Your task to perform on an android device: Go to eBay Image 0: 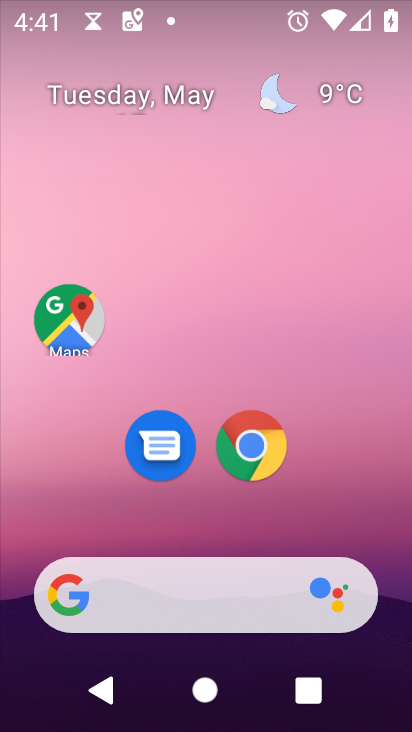
Step 0: drag from (261, 601) to (265, 119)
Your task to perform on an android device: Go to eBay Image 1: 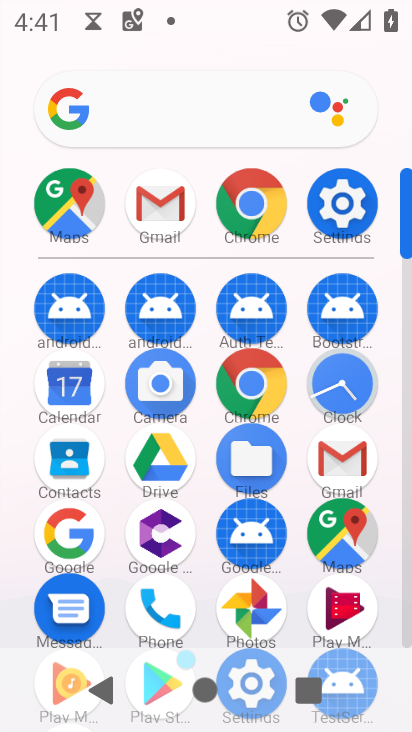
Step 1: click (262, 353)
Your task to perform on an android device: Go to eBay Image 2: 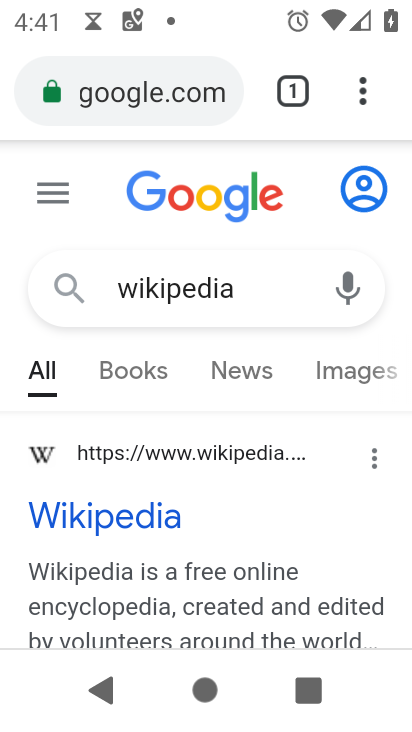
Step 2: click (223, 86)
Your task to perform on an android device: Go to eBay Image 3: 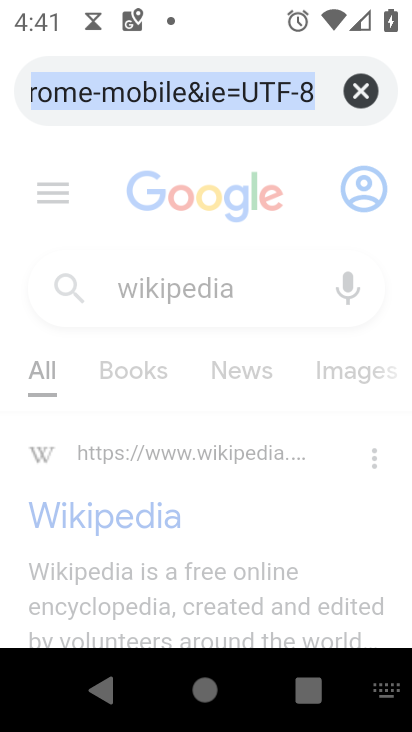
Step 3: click (356, 85)
Your task to perform on an android device: Go to eBay Image 4: 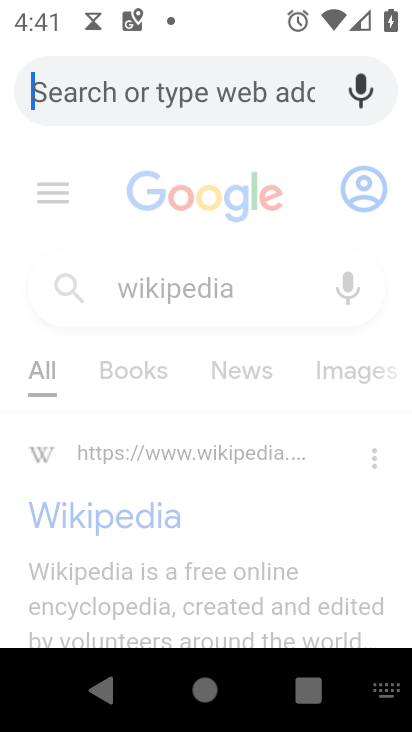
Step 4: type "ebay"
Your task to perform on an android device: Go to eBay Image 5: 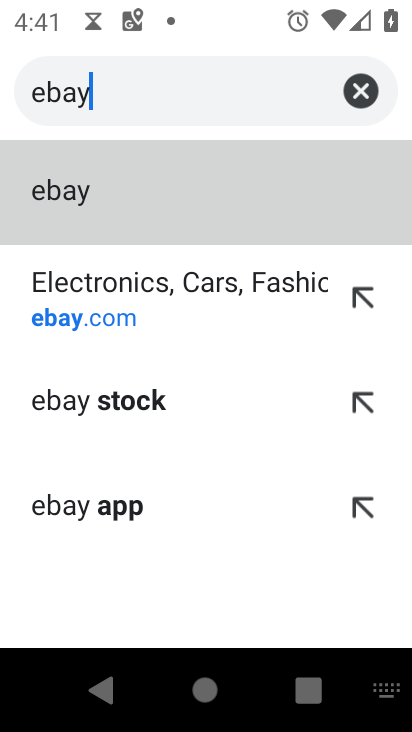
Step 5: click (194, 299)
Your task to perform on an android device: Go to eBay Image 6: 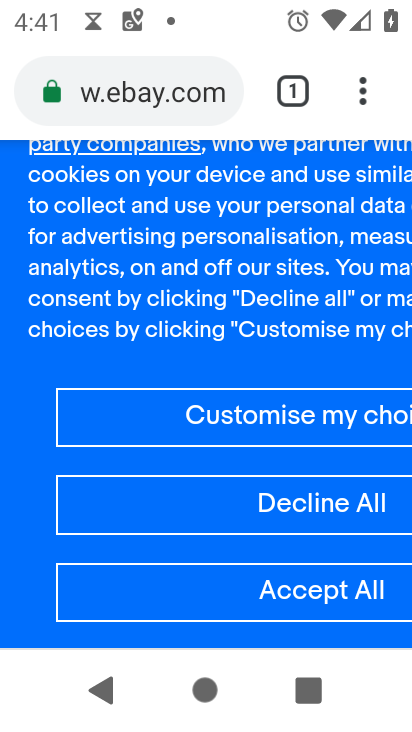
Step 6: task complete